Your task to perform on an android device: Show me productivity apps on the Play Store Image 0: 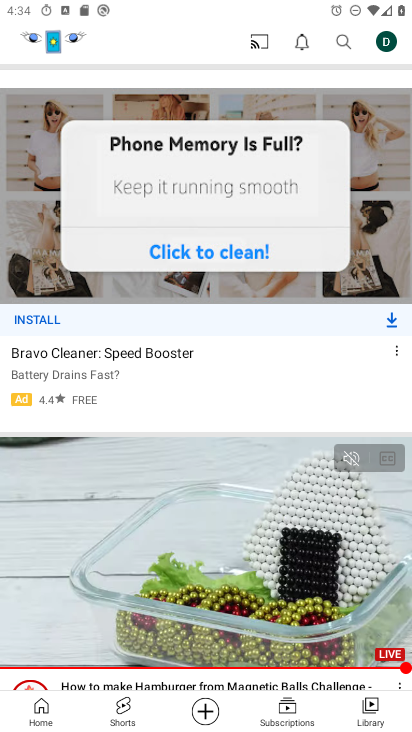
Step 0: press home button
Your task to perform on an android device: Show me productivity apps on the Play Store Image 1: 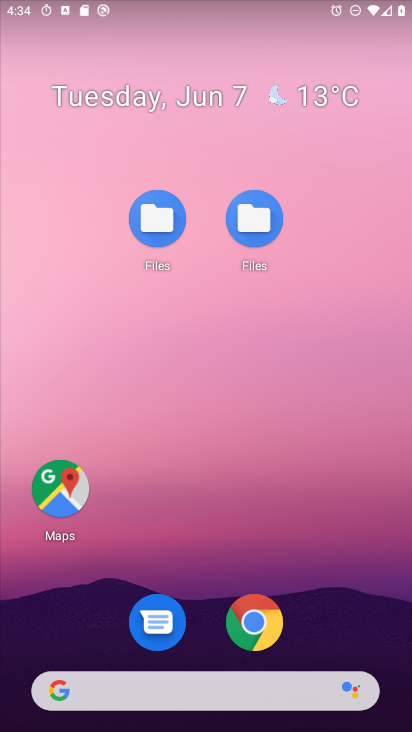
Step 1: drag from (294, 633) to (376, 150)
Your task to perform on an android device: Show me productivity apps on the Play Store Image 2: 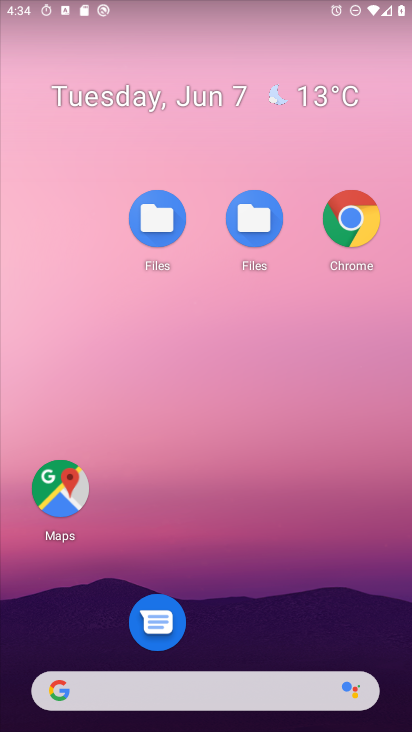
Step 2: drag from (302, 629) to (294, 156)
Your task to perform on an android device: Show me productivity apps on the Play Store Image 3: 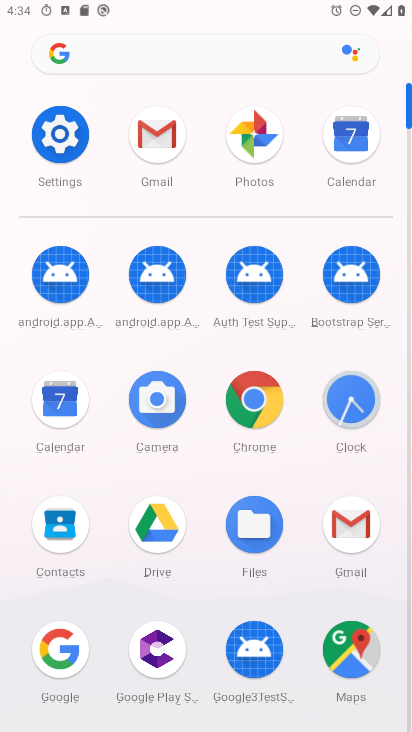
Step 3: drag from (194, 641) to (204, 217)
Your task to perform on an android device: Show me productivity apps on the Play Store Image 4: 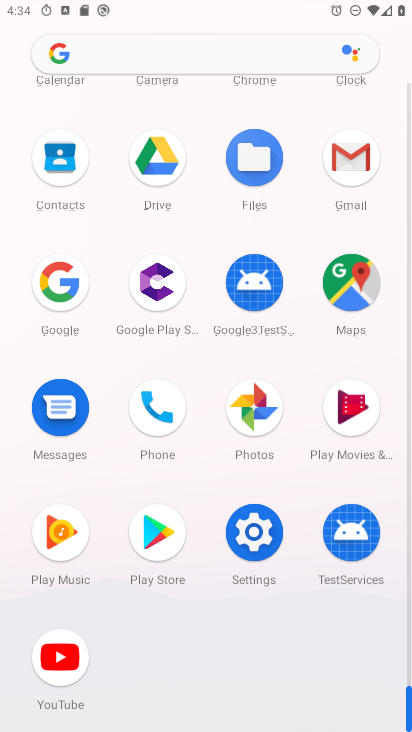
Step 4: click (152, 540)
Your task to perform on an android device: Show me productivity apps on the Play Store Image 5: 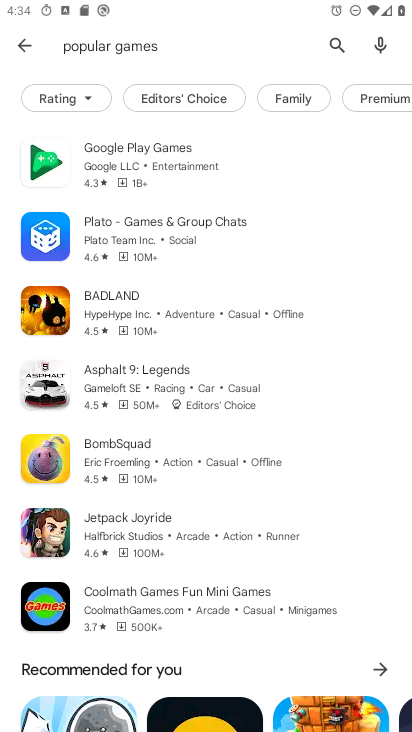
Step 5: click (132, 27)
Your task to perform on an android device: Show me productivity apps on the Play Store Image 6: 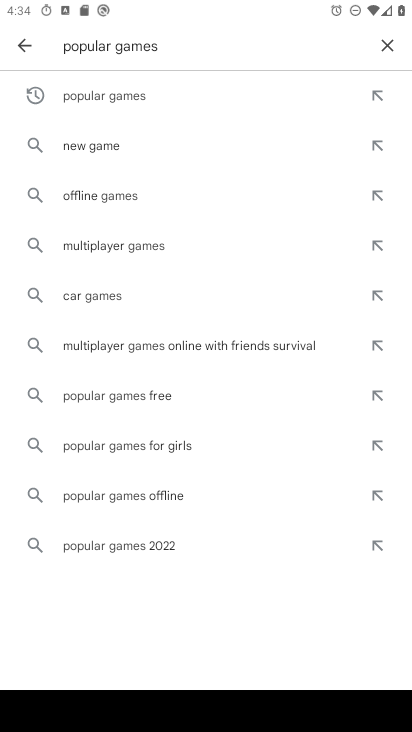
Step 6: click (388, 34)
Your task to perform on an android device: Show me productivity apps on the Play Store Image 7: 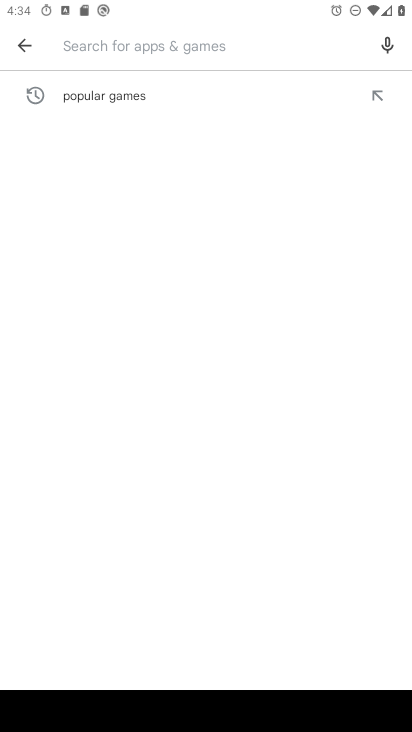
Step 7: type "productivity apps"
Your task to perform on an android device: Show me productivity apps on the Play Store Image 8: 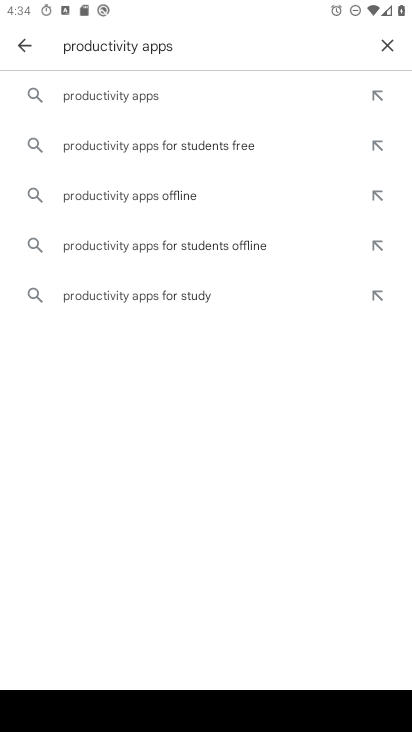
Step 8: click (109, 96)
Your task to perform on an android device: Show me productivity apps on the Play Store Image 9: 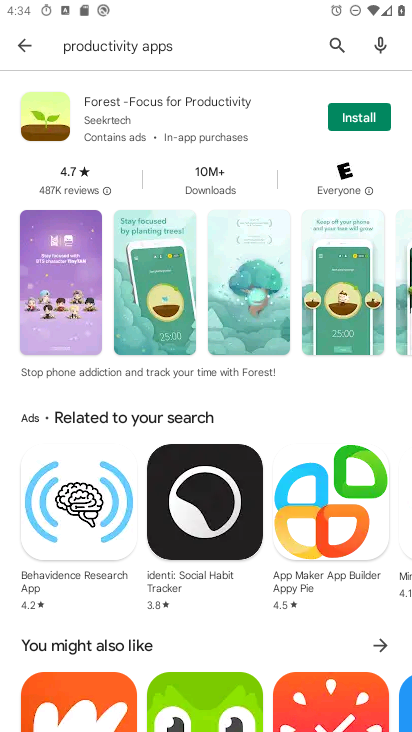
Step 9: task complete